Your task to perform on an android device: Find coffee shops on Maps Image 0: 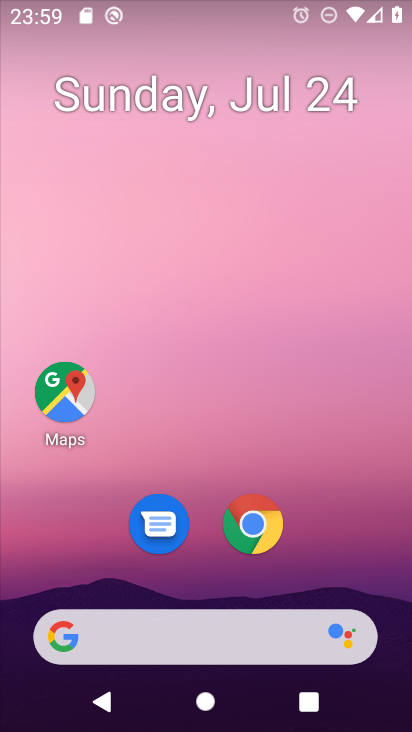
Step 0: press home button
Your task to perform on an android device: Find coffee shops on Maps Image 1: 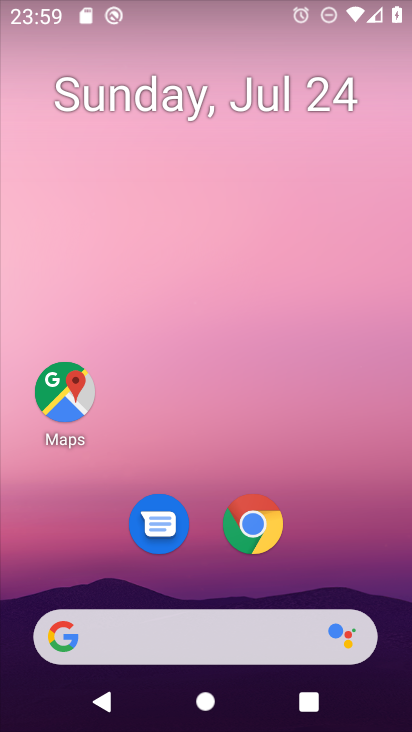
Step 1: click (65, 398)
Your task to perform on an android device: Find coffee shops on Maps Image 2: 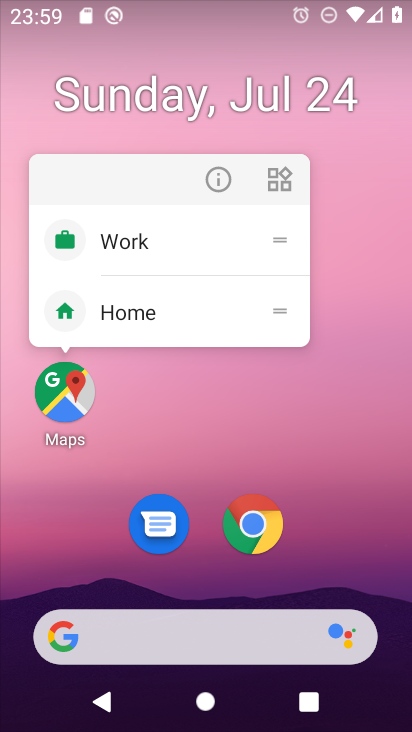
Step 2: click (59, 395)
Your task to perform on an android device: Find coffee shops on Maps Image 3: 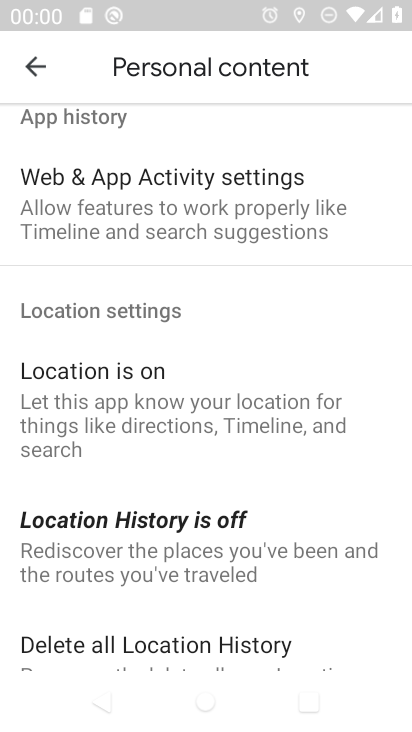
Step 3: click (39, 64)
Your task to perform on an android device: Find coffee shops on Maps Image 4: 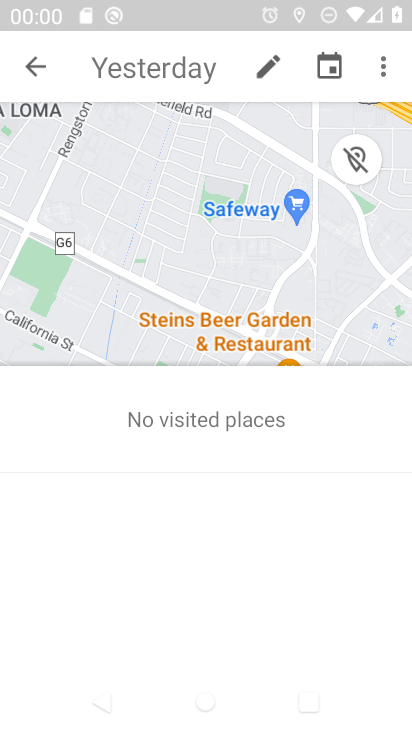
Step 4: click (43, 61)
Your task to perform on an android device: Find coffee shops on Maps Image 5: 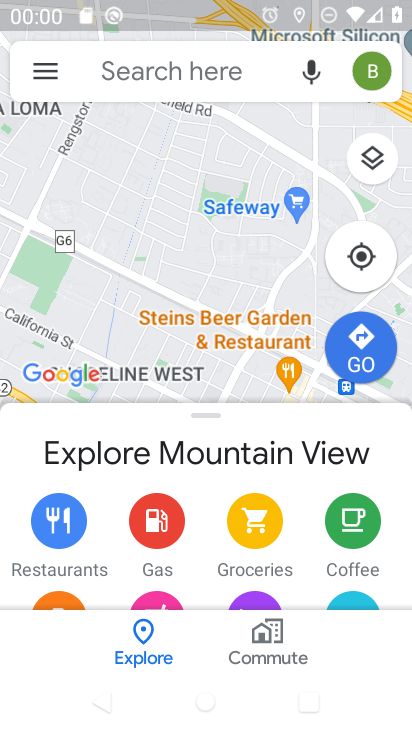
Step 5: click (124, 73)
Your task to perform on an android device: Find coffee shops on Maps Image 6: 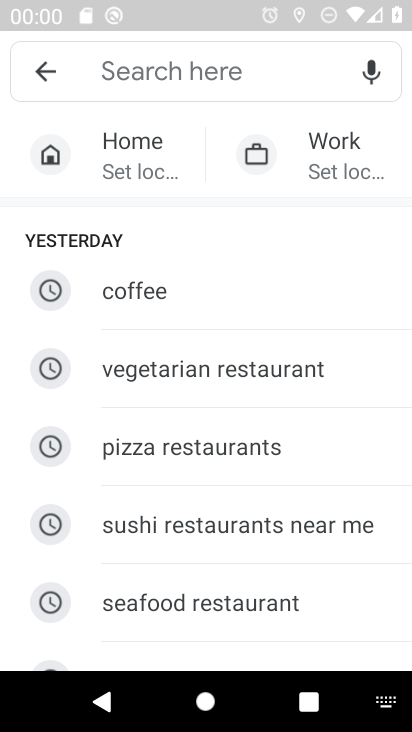
Step 6: click (148, 293)
Your task to perform on an android device: Find coffee shops on Maps Image 7: 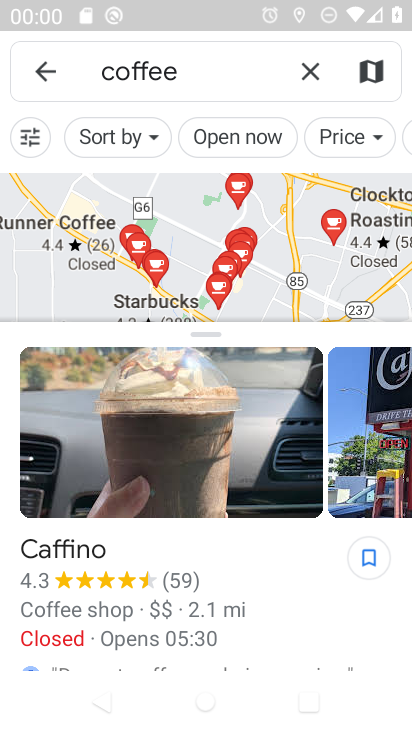
Step 7: task complete